Your task to perform on an android device: toggle data saver in the chrome app Image 0: 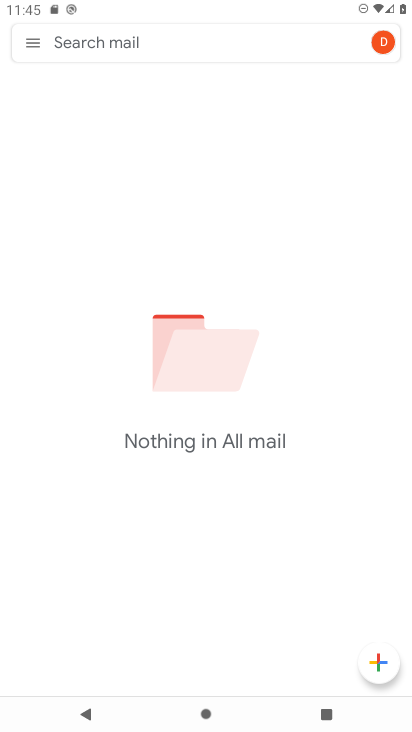
Step 0: press home button
Your task to perform on an android device: toggle data saver in the chrome app Image 1: 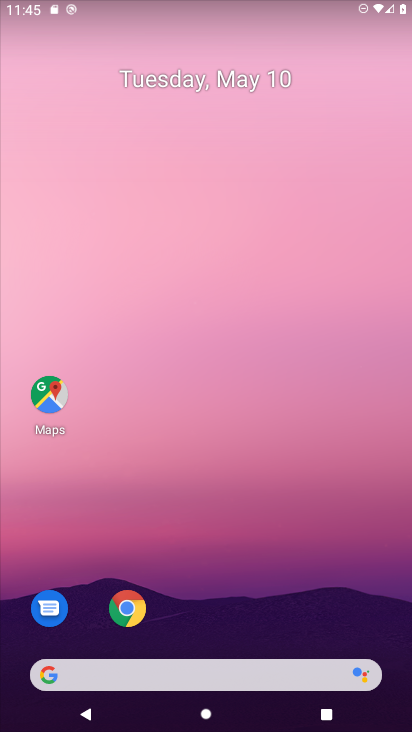
Step 1: drag from (232, 594) to (198, 33)
Your task to perform on an android device: toggle data saver in the chrome app Image 2: 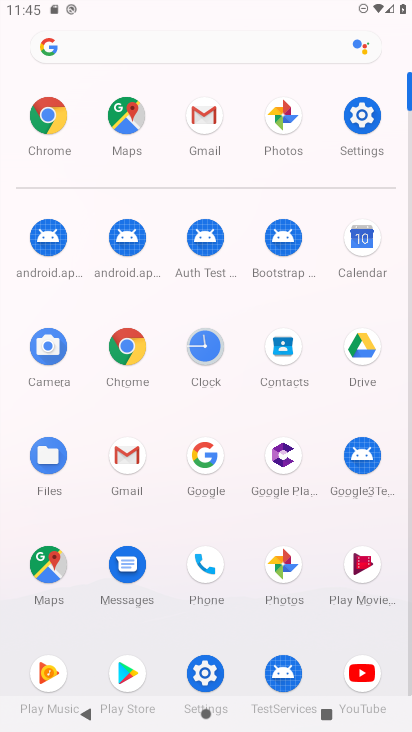
Step 2: click (47, 104)
Your task to perform on an android device: toggle data saver in the chrome app Image 3: 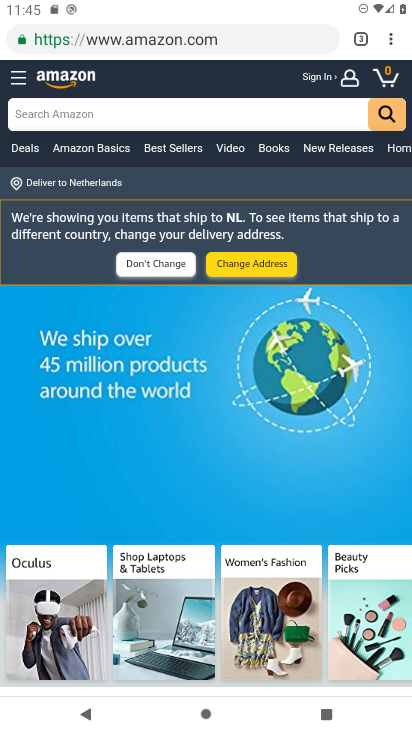
Step 3: click (388, 34)
Your task to perform on an android device: toggle data saver in the chrome app Image 4: 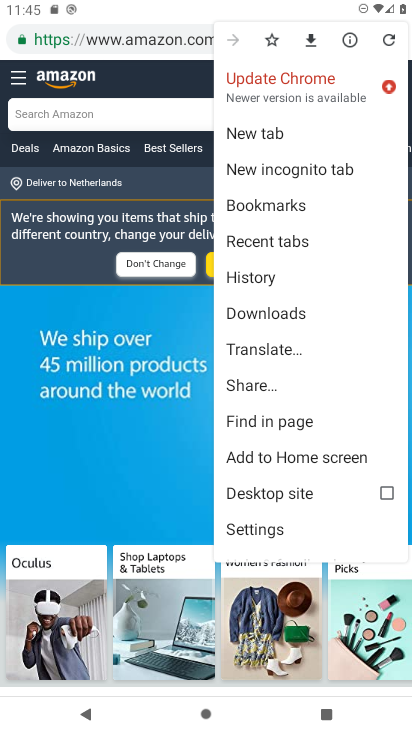
Step 4: click (297, 528)
Your task to perform on an android device: toggle data saver in the chrome app Image 5: 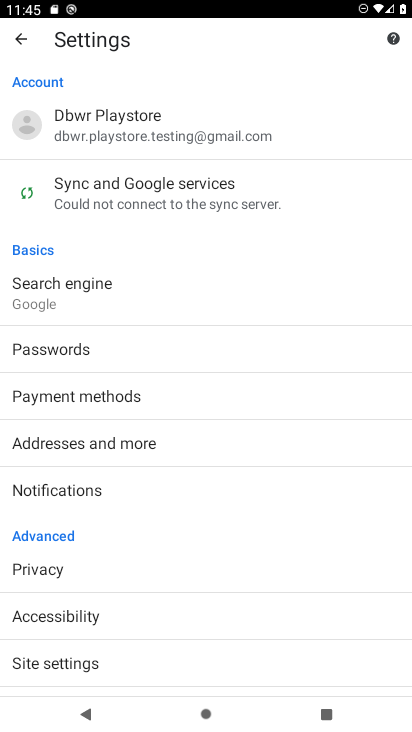
Step 5: drag from (239, 598) to (259, 297)
Your task to perform on an android device: toggle data saver in the chrome app Image 6: 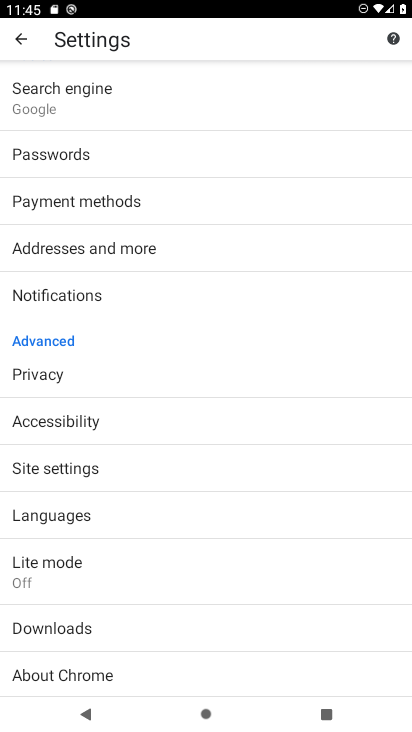
Step 6: click (113, 569)
Your task to perform on an android device: toggle data saver in the chrome app Image 7: 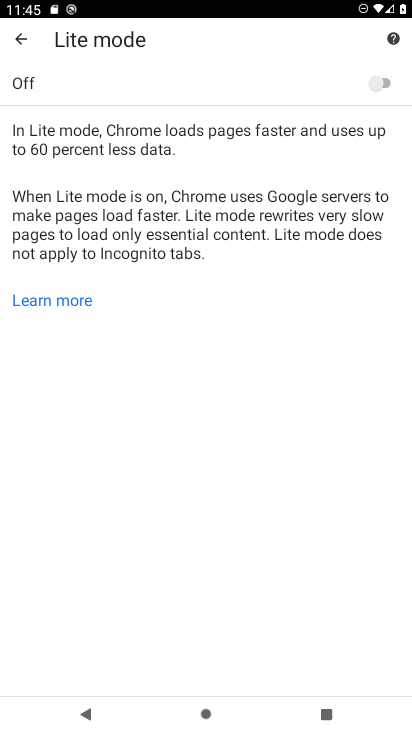
Step 7: click (379, 81)
Your task to perform on an android device: toggle data saver in the chrome app Image 8: 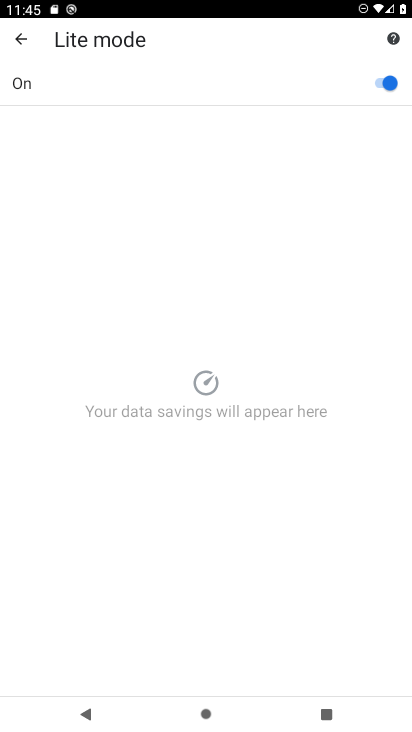
Step 8: task complete